Your task to perform on an android device: turn on sleep mode Image 0: 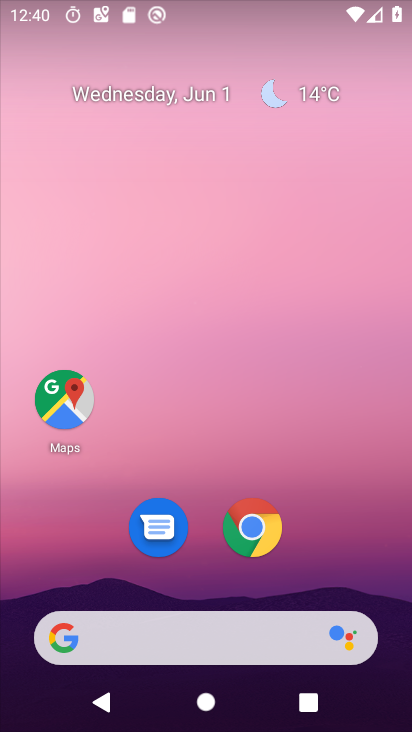
Step 0: drag from (359, 610) to (67, 21)
Your task to perform on an android device: turn on sleep mode Image 1: 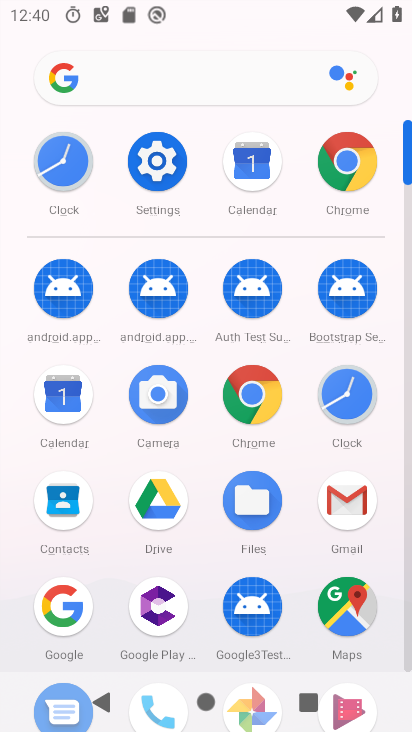
Step 1: click (159, 165)
Your task to perform on an android device: turn on sleep mode Image 2: 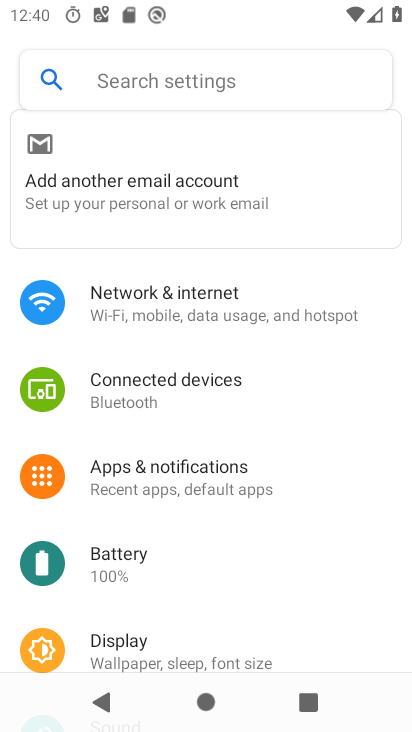
Step 2: drag from (316, 522) to (301, 293)
Your task to perform on an android device: turn on sleep mode Image 3: 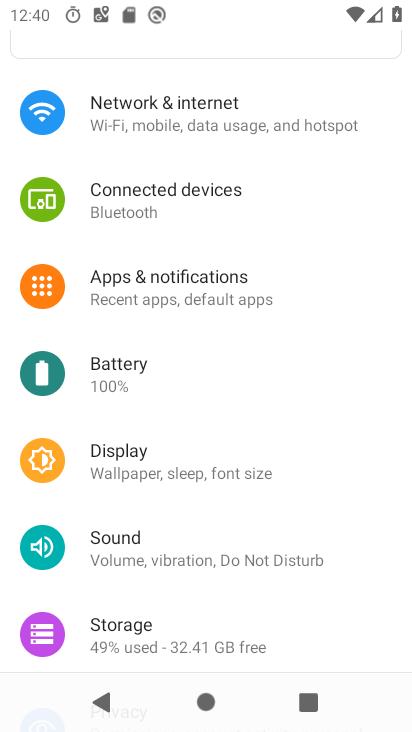
Step 3: click (88, 471)
Your task to perform on an android device: turn on sleep mode Image 4: 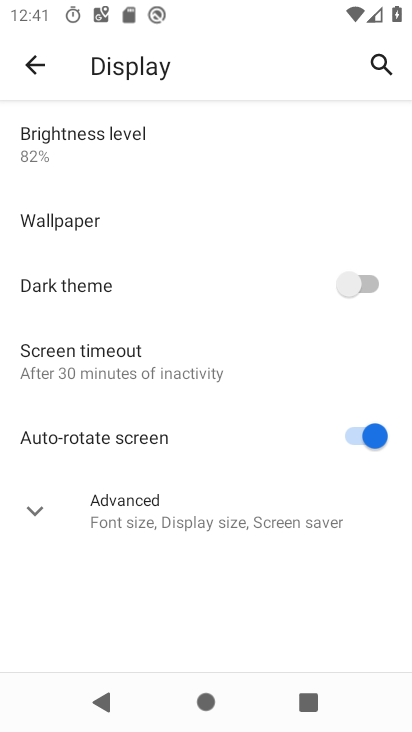
Step 4: click (36, 520)
Your task to perform on an android device: turn on sleep mode Image 5: 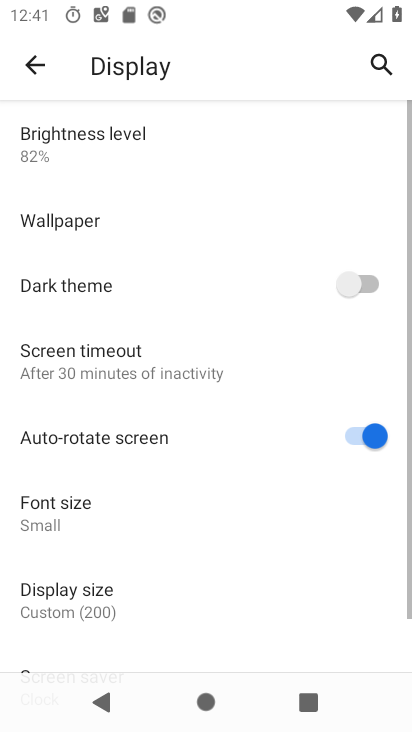
Step 5: task complete